Your task to perform on an android device: turn smart compose on in the gmail app Image 0: 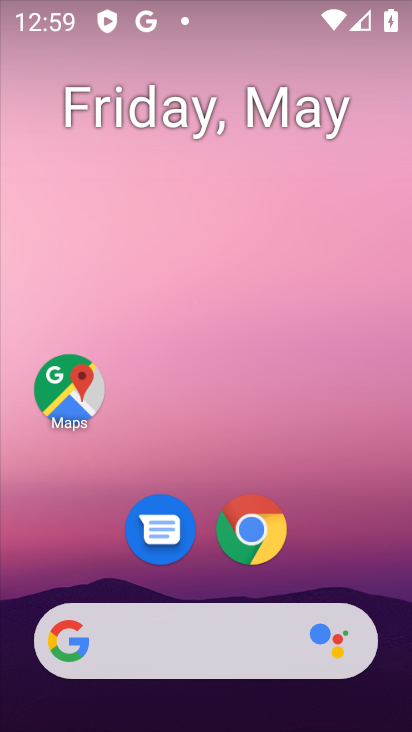
Step 0: drag from (72, 593) to (236, 173)
Your task to perform on an android device: turn smart compose on in the gmail app Image 1: 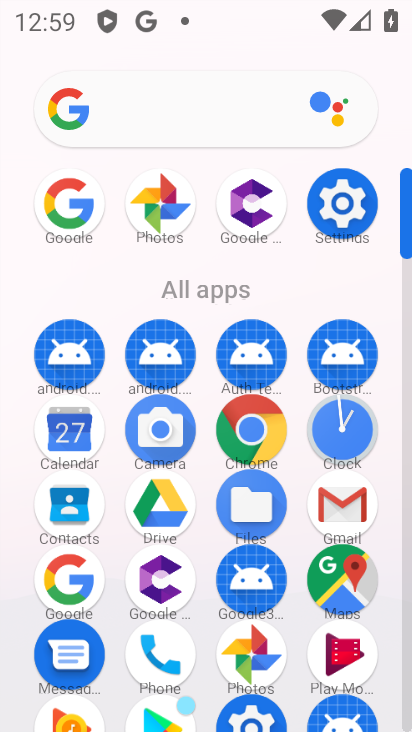
Step 1: click (369, 509)
Your task to perform on an android device: turn smart compose on in the gmail app Image 2: 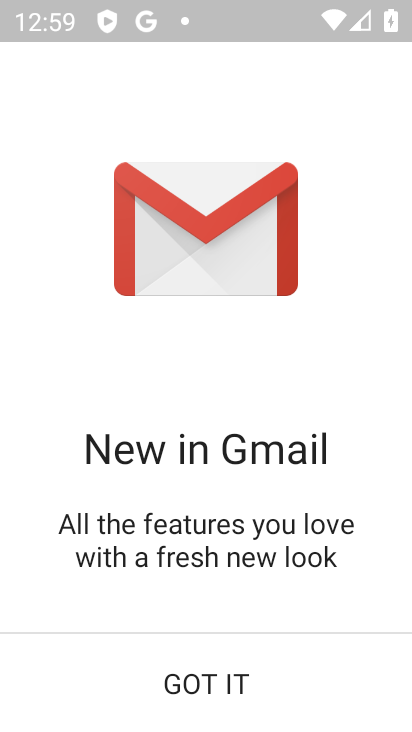
Step 2: click (250, 661)
Your task to perform on an android device: turn smart compose on in the gmail app Image 3: 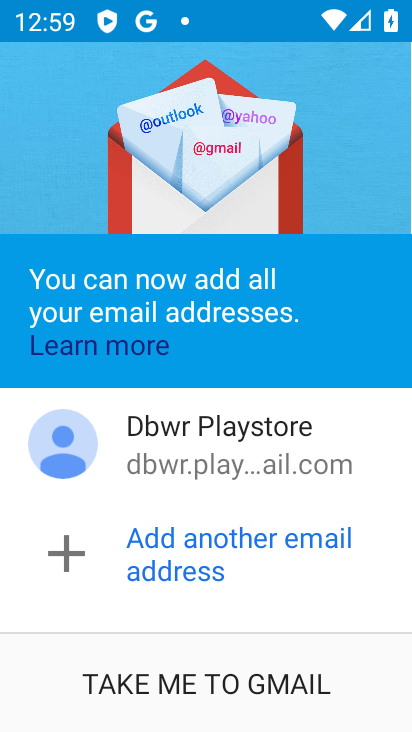
Step 3: click (275, 680)
Your task to perform on an android device: turn smart compose on in the gmail app Image 4: 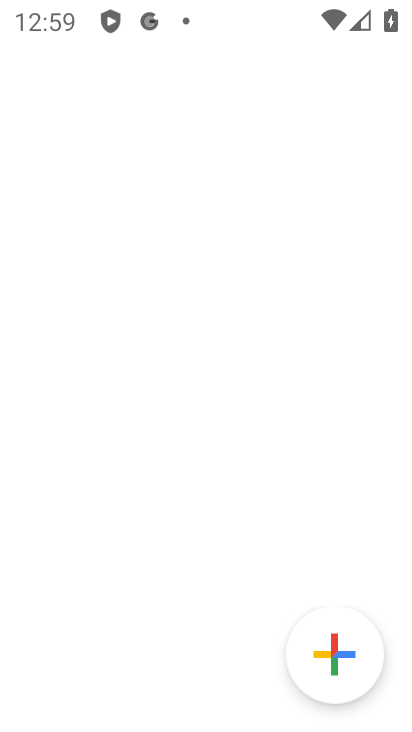
Step 4: click (275, 679)
Your task to perform on an android device: turn smart compose on in the gmail app Image 5: 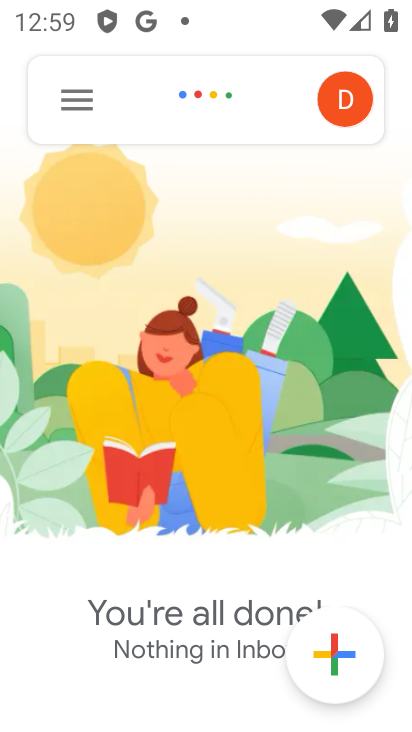
Step 5: click (100, 97)
Your task to perform on an android device: turn smart compose on in the gmail app Image 6: 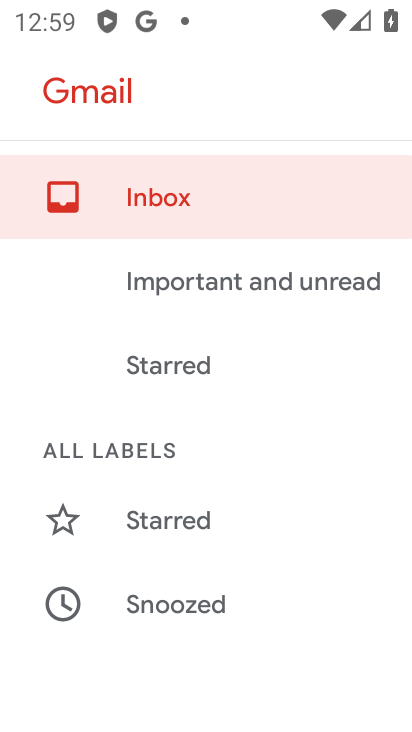
Step 6: drag from (185, 584) to (356, 146)
Your task to perform on an android device: turn smart compose on in the gmail app Image 7: 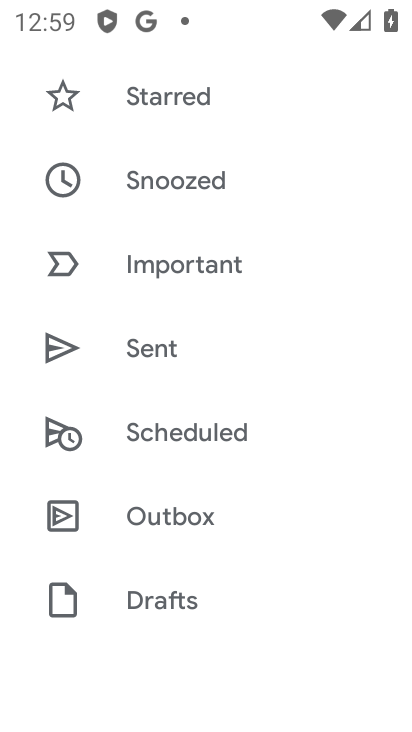
Step 7: drag from (234, 631) to (358, 163)
Your task to perform on an android device: turn smart compose on in the gmail app Image 8: 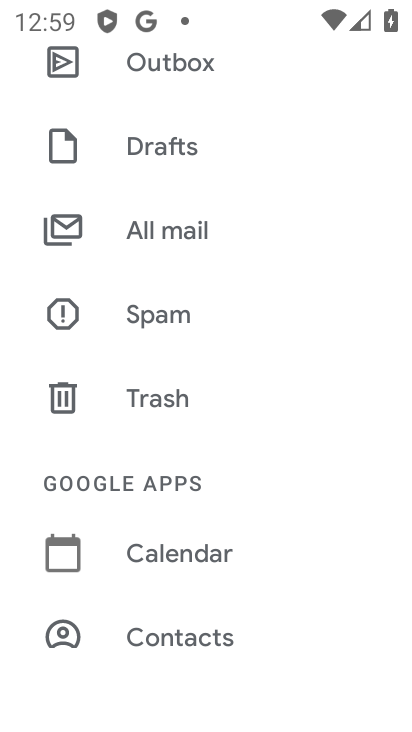
Step 8: drag from (272, 537) to (370, 223)
Your task to perform on an android device: turn smart compose on in the gmail app Image 9: 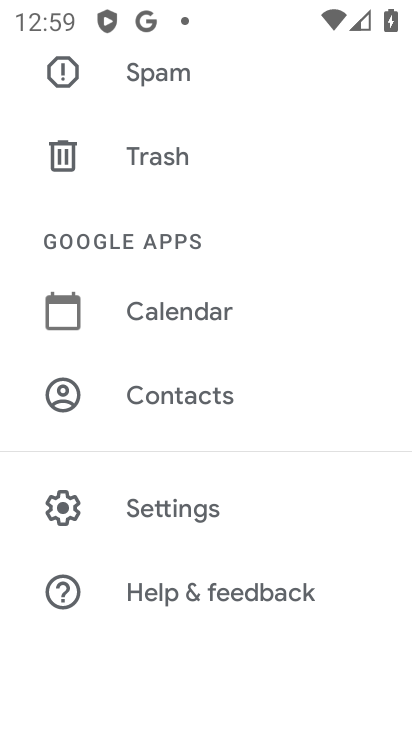
Step 9: drag from (260, 583) to (333, 292)
Your task to perform on an android device: turn smart compose on in the gmail app Image 10: 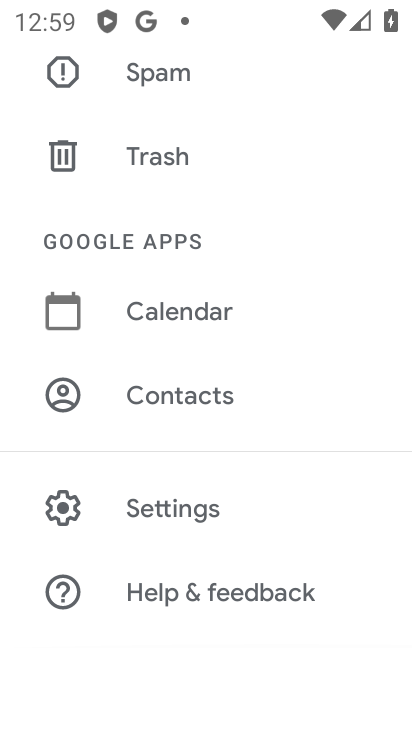
Step 10: click (192, 507)
Your task to perform on an android device: turn smart compose on in the gmail app Image 11: 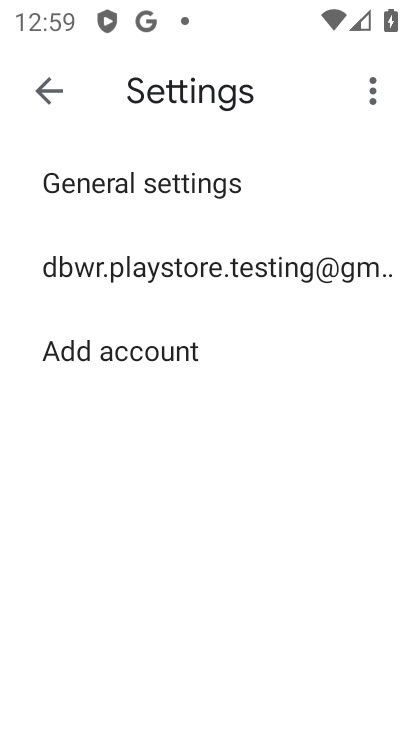
Step 11: click (263, 273)
Your task to perform on an android device: turn smart compose on in the gmail app Image 12: 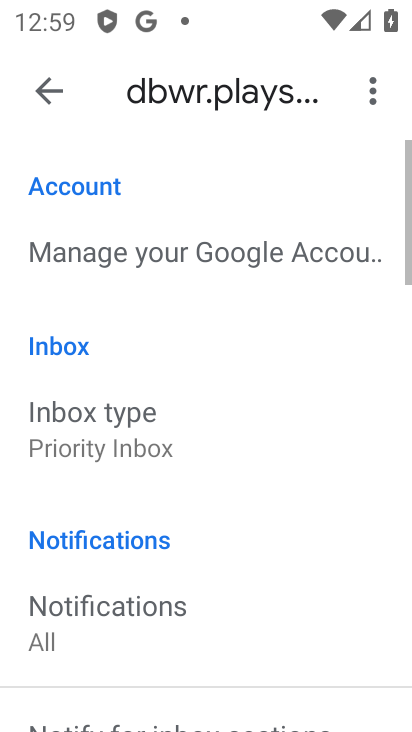
Step 12: task complete